Your task to perform on an android device: Add "dell alienware" to the cart on walmart.com Image 0: 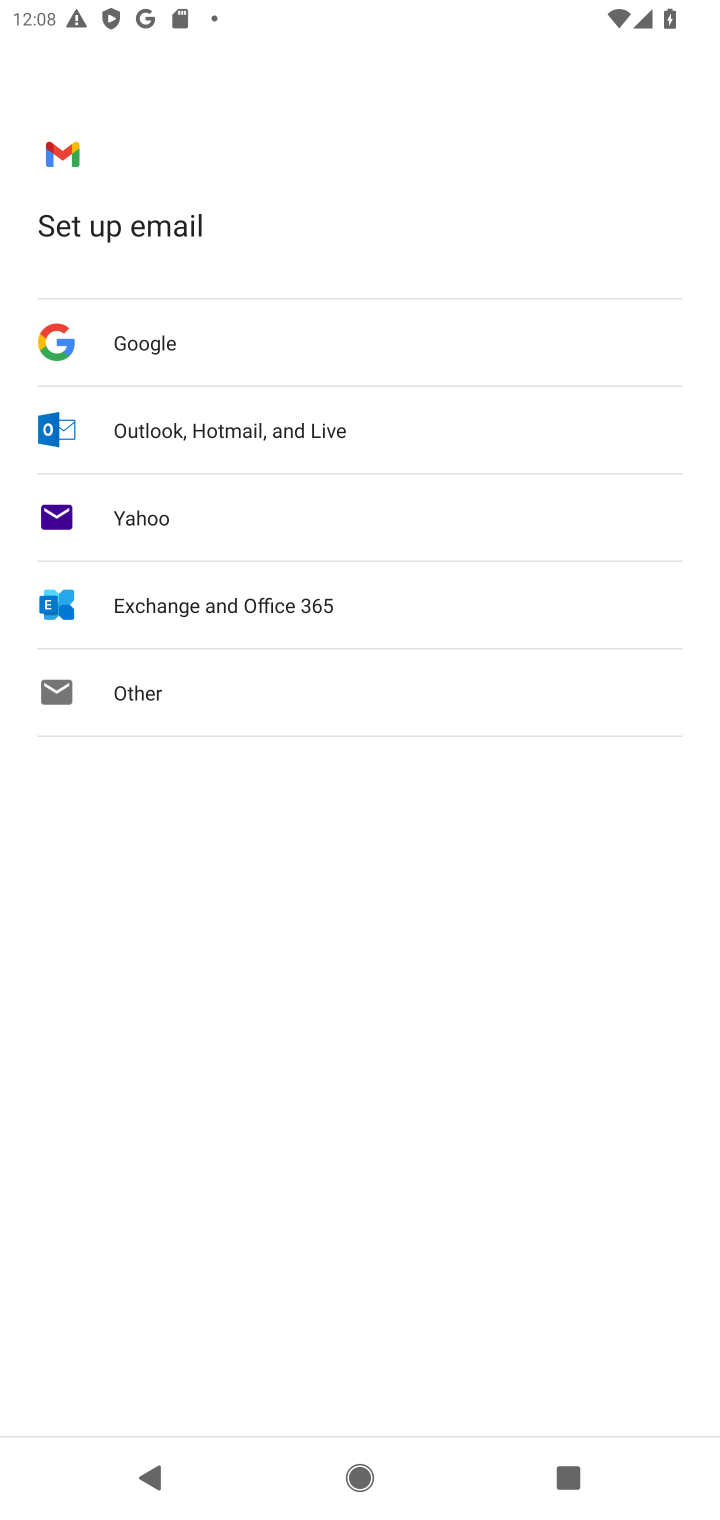
Step 0: press home button
Your task to perform on an android device: Add "dell alienware" to the cart on walmart.com Image 1: 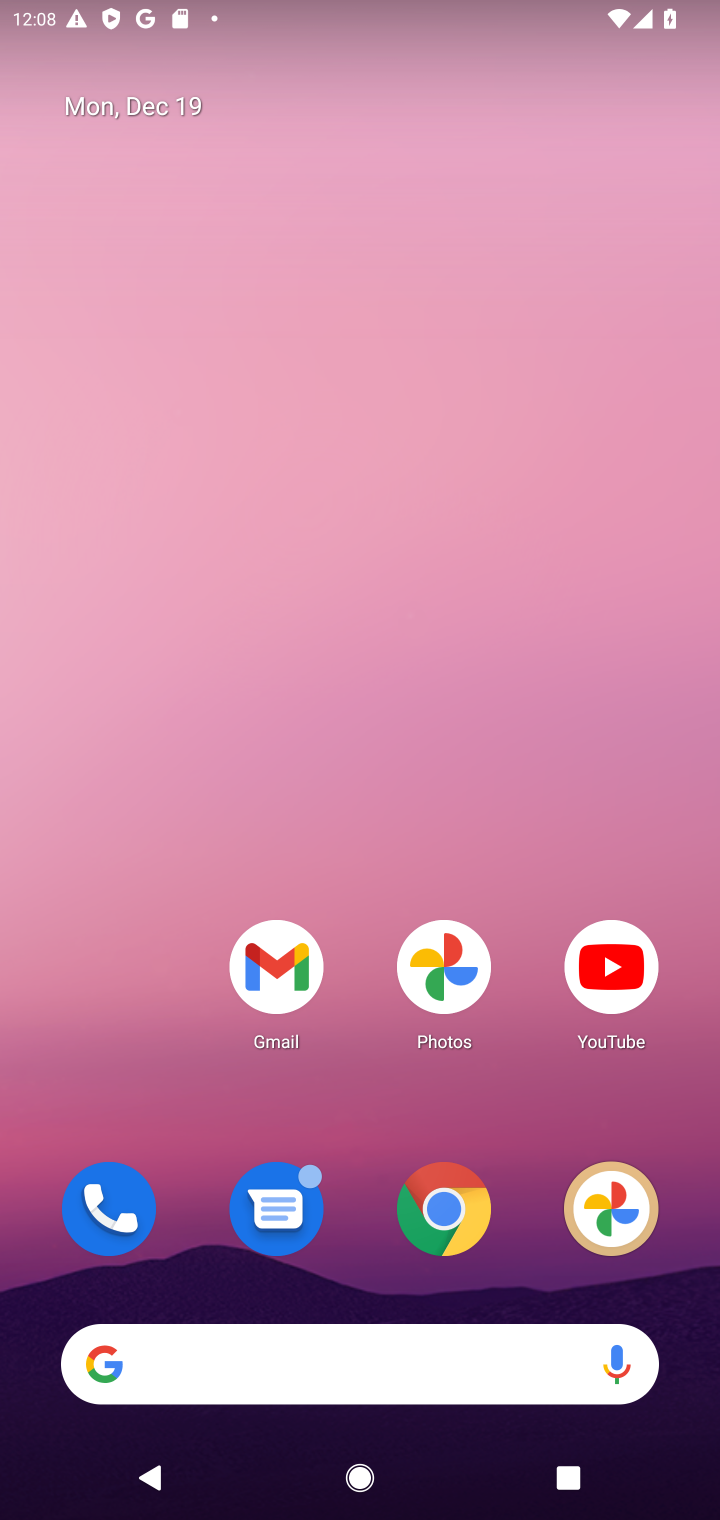
Step 1: click (428, 1215)
Your task to perform on an android device: Add "dell alienware" to the cart on walmart.com Image 2: 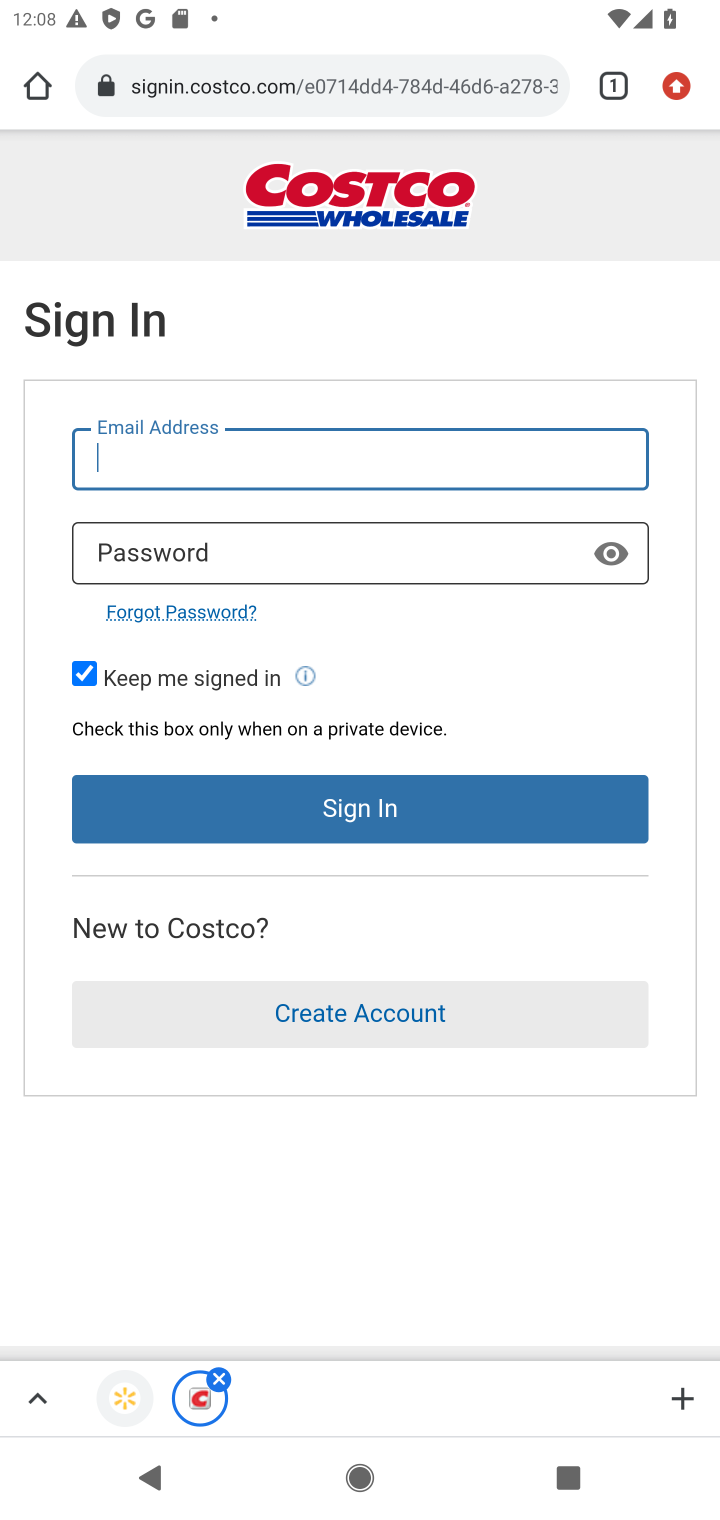
Step 2: click (281, 95)
Your task to perform on an android device: Add "dell alienware" to the cart on walmart.com Image 3: 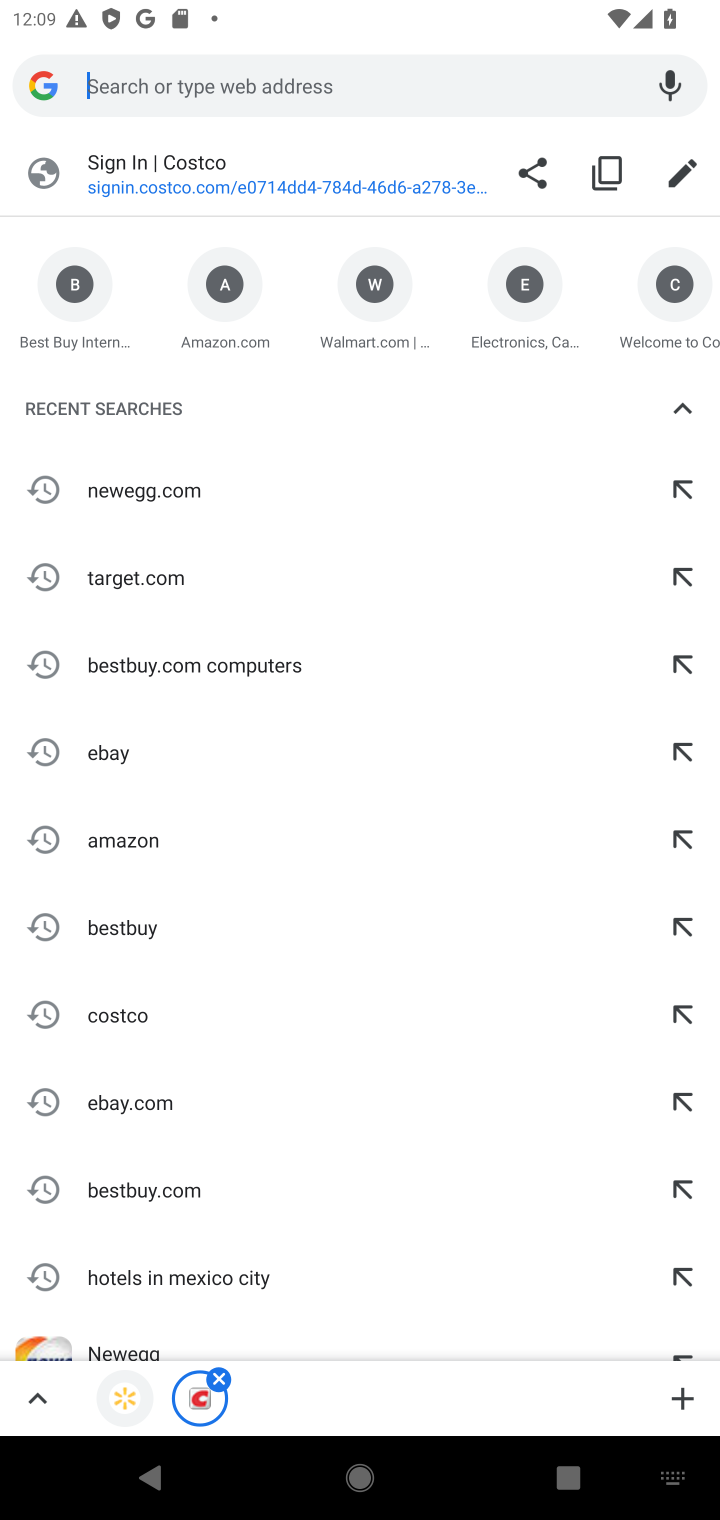
Step 3: type "WALMART"
Your task to perform on an android device: Add "dell alienware" to the cart on walmart.com Image 4: 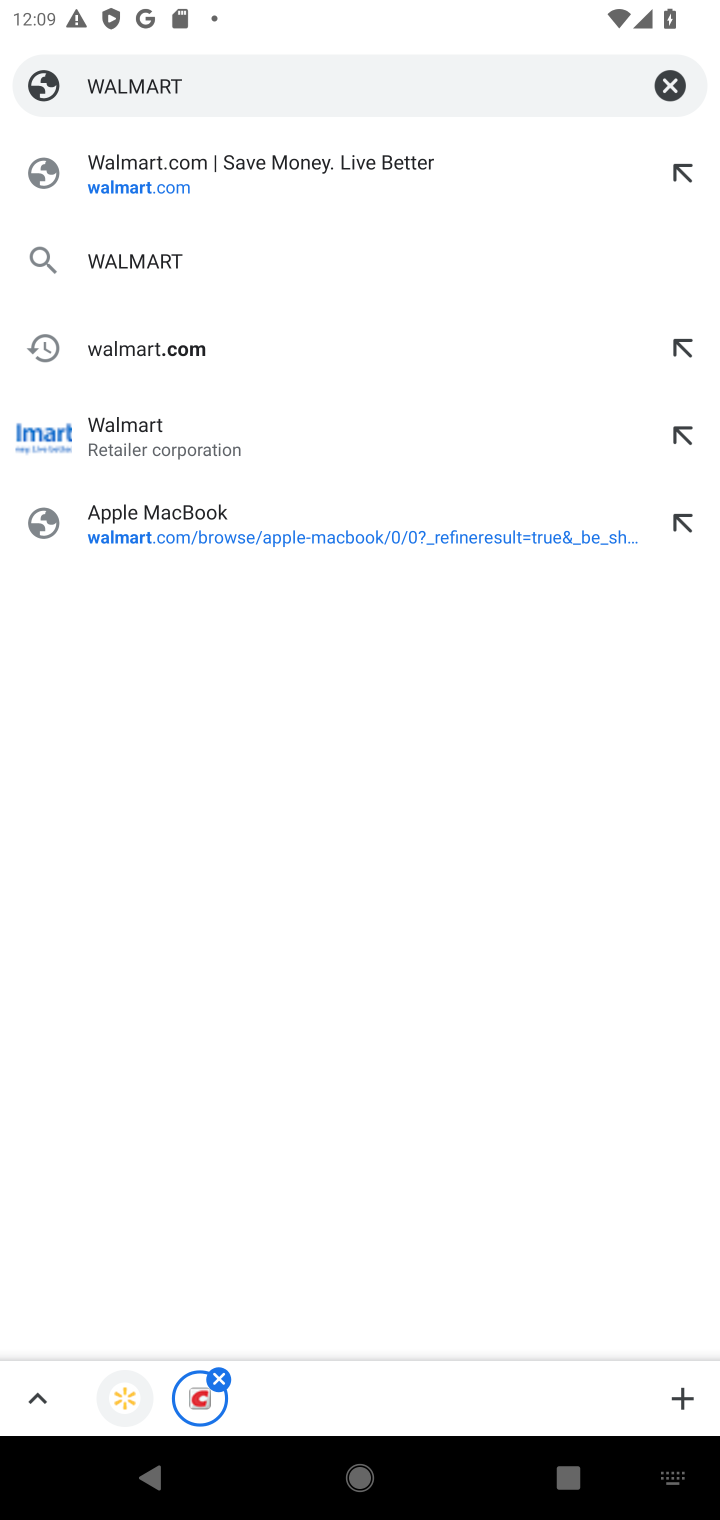
Step 4: click (157, 153)
Your task to perform on an android device: Add "dell alienware" to the cart on walmart.com Image 5: 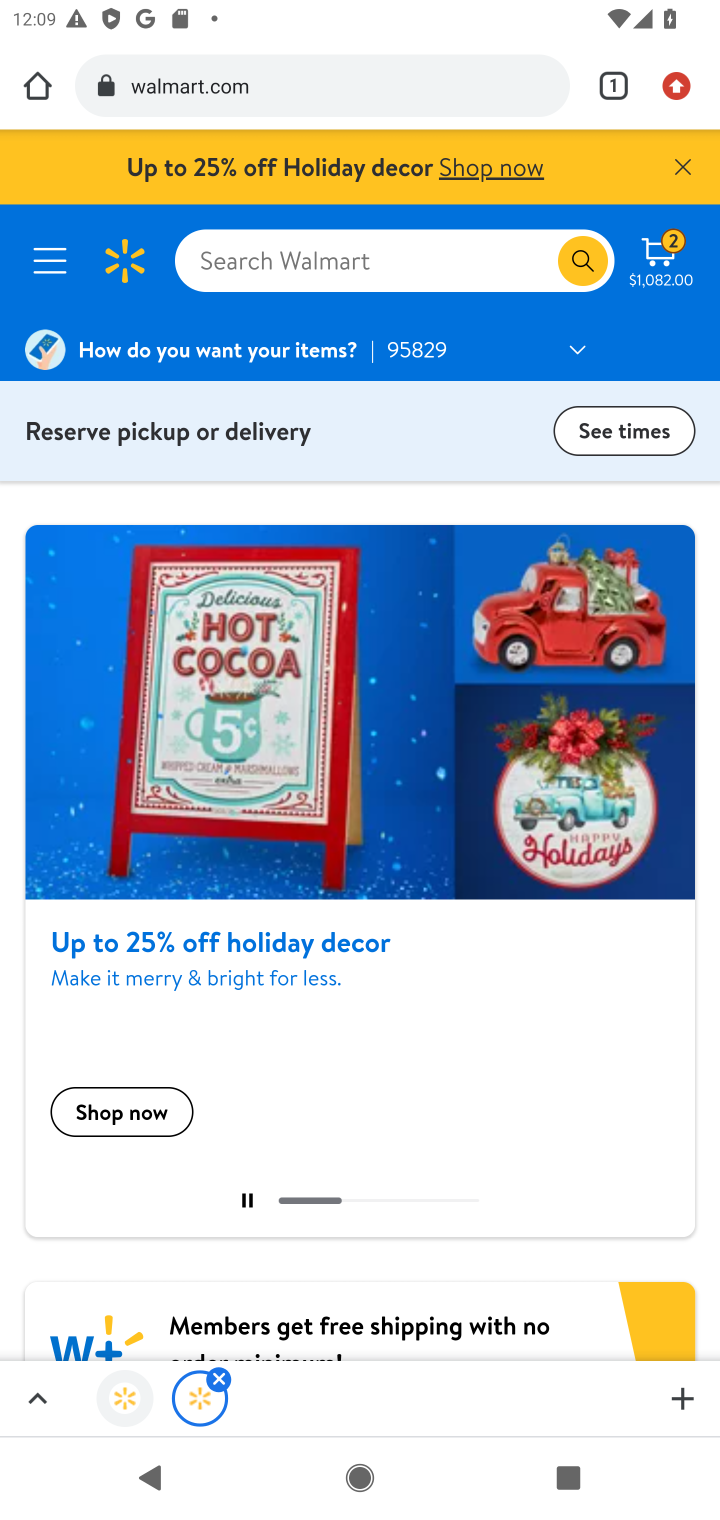
Step 5: click (329, 253)
Your task to perform on an android device: Add "dell alienware" to the cart on walmart.com Image 6: 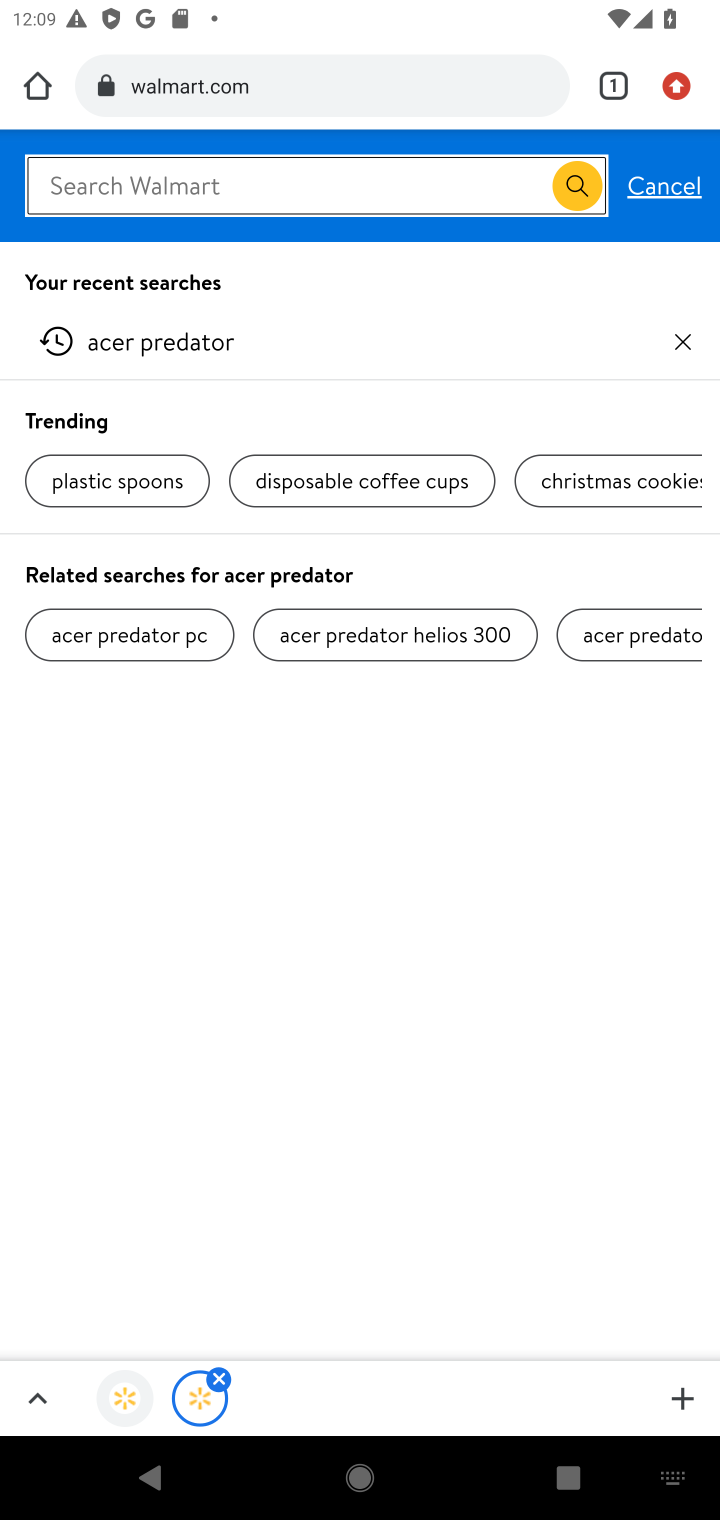
Step 6: type "dell alienware"
Your task to perform on an android device: Add "dell alienware" to the cart on walmart.com Image 7: 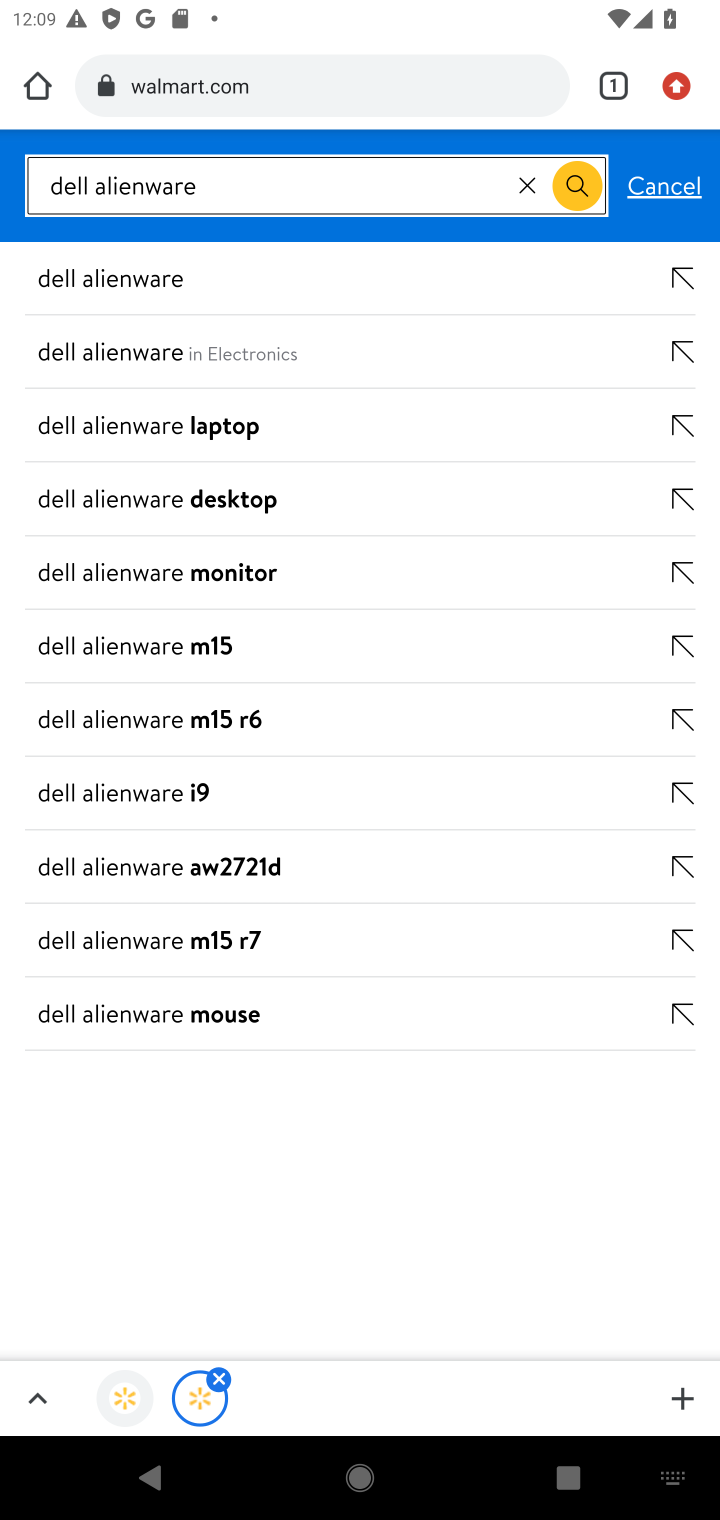
Step 7: click (143, 278)
Your task to perform on an android device: Add "dell alienware" to the cart on walmart.com Image 8: 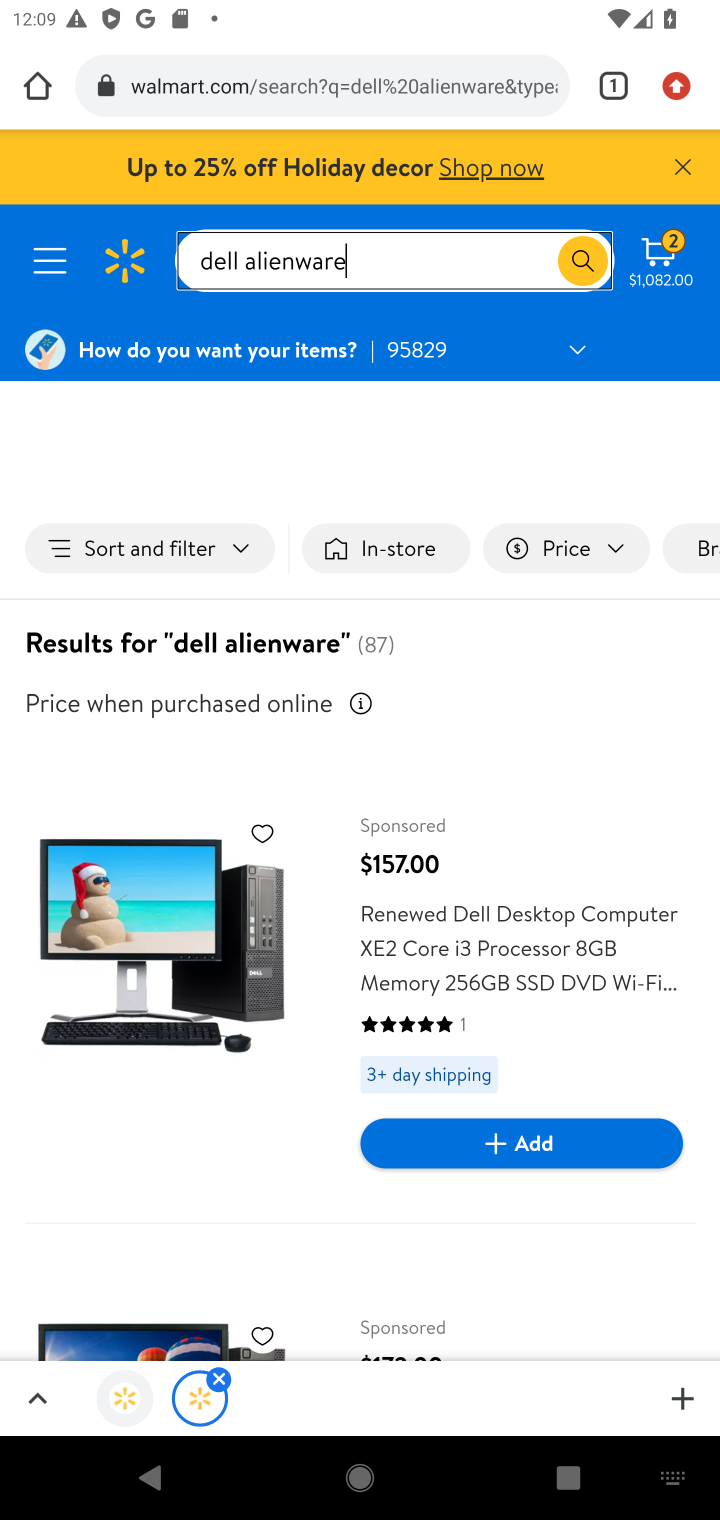
Step 8: click (544, 1137)
Your task to perform on an android device: Add "dell alienware" to the cart on walmart.com Image 9: 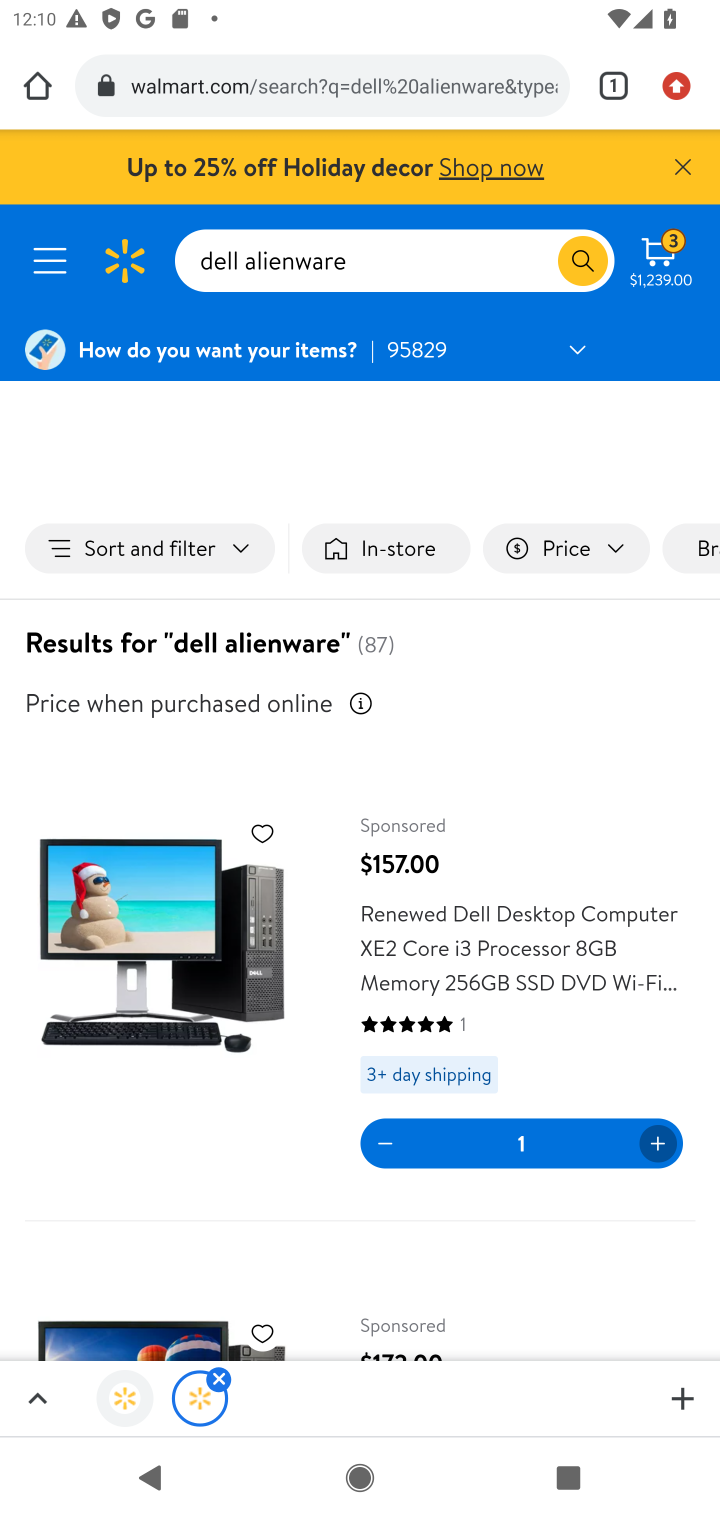
Step 9: task complete